Your task to perform on an android device: Open internet settings Image 0: 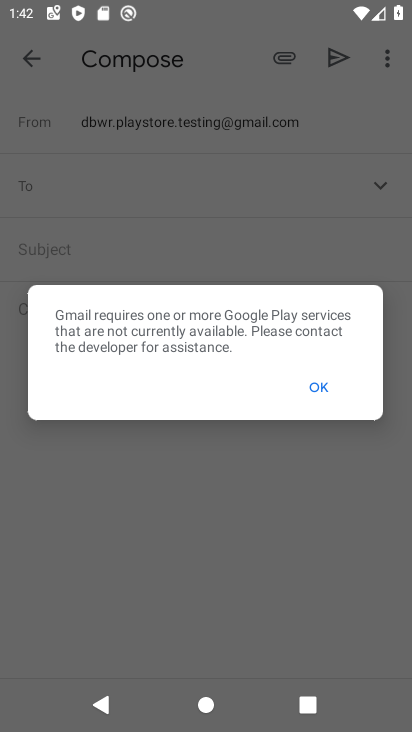
Step 0: press back button
Your task to perform on an android device: Open internet settings Image 1: 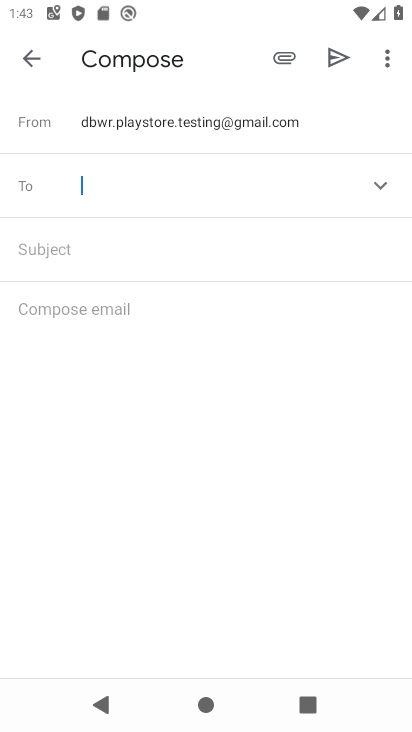
Step 1: press back button
Your task to perform on an android device: Open internet settings Image 2: 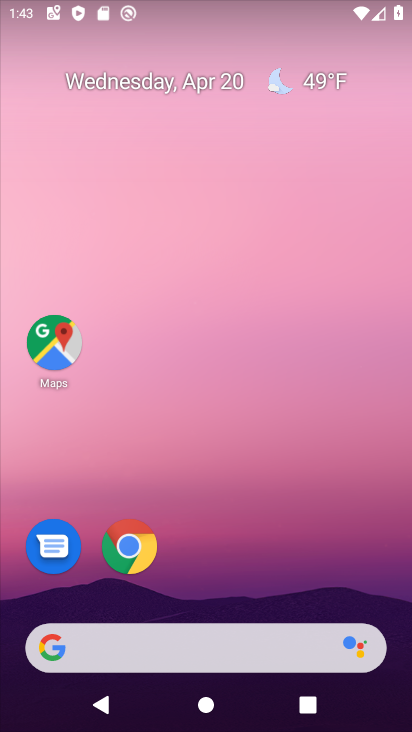
Step 2: drag from (235, 593) to (282, 47)
Your task to perform on an android device: Open internet settings Image 3: 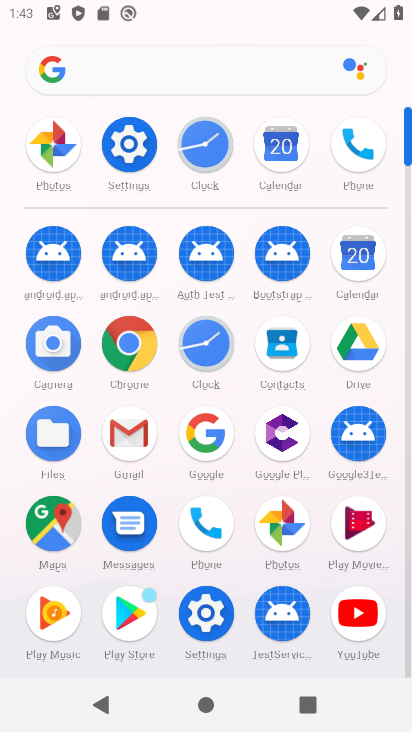
Step 3: click (131, 135)
Your task to perform on an android device: Open internet settings Image 4: 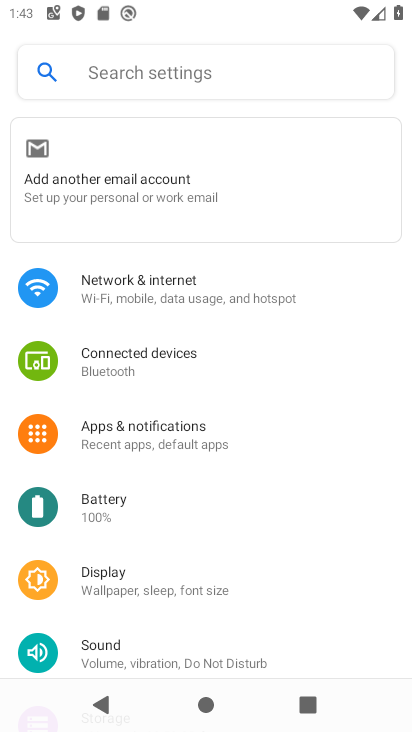
Step 4: click (162, 276)
Your task to perform on an android device: Open internet settings Image 5: 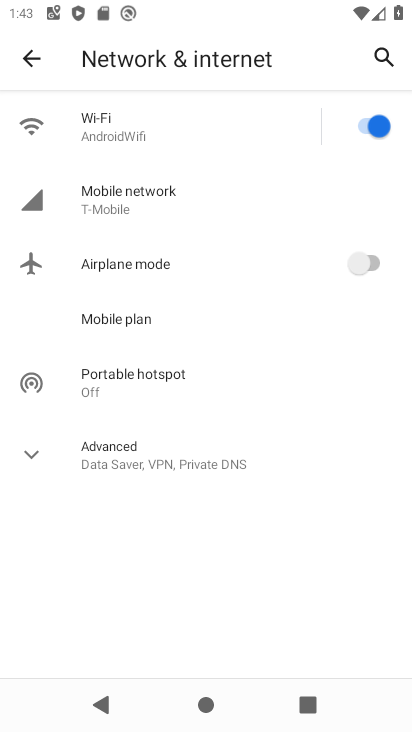
Step 5: task complete